Your task to perform on an android device: turn off location Image 0: 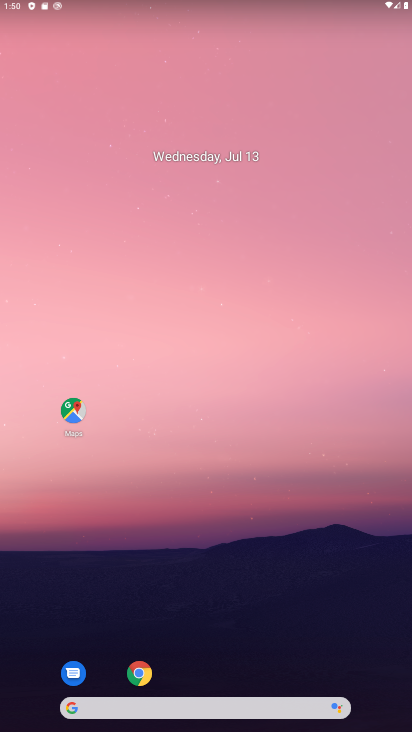
Step 0: drag from (190, 623) to (265, 105)
Your task to perform on an android device: turn off location Image 1: 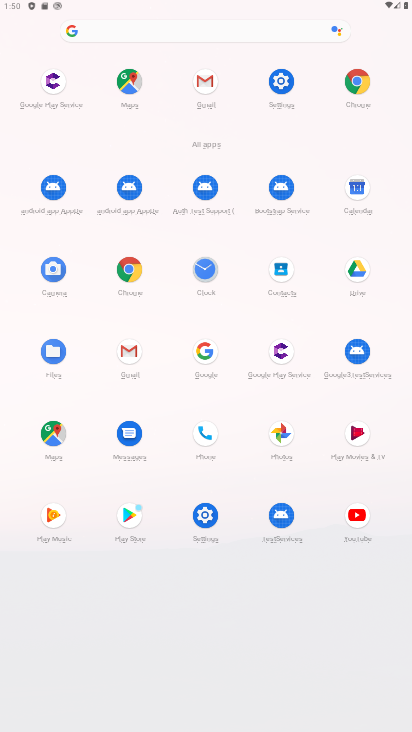
Step 1: click (286, 79)
Your task to perform on an android device: turn off location Image 2: 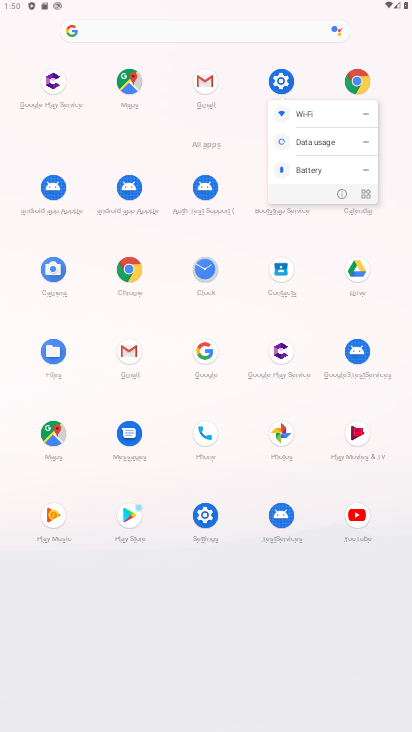
Step 2: click (245, 78)
Your task to perform on an android device: turn off location Image 3: 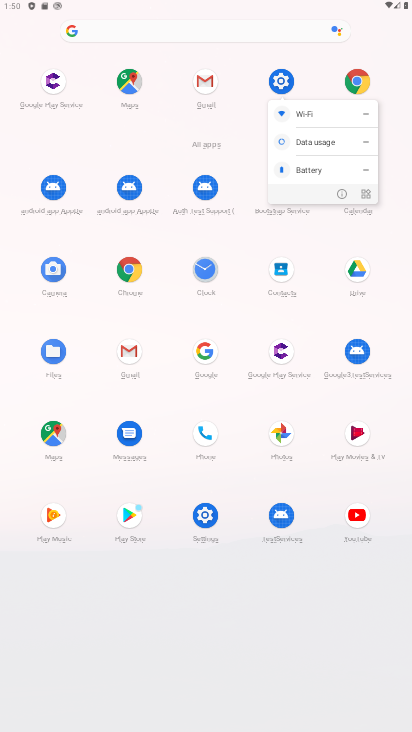
Step 3: click (269, 67)
Your task to perform on an android device: turn off location Image 4: 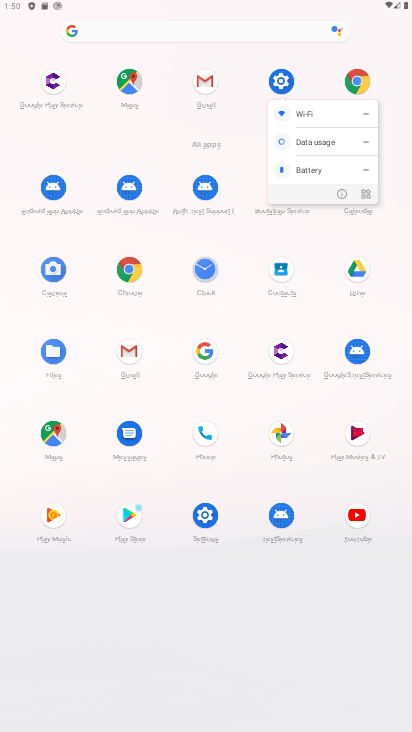
Step 4: click (285, 79)
Your task to perform on an android device: turn off location Image 5: 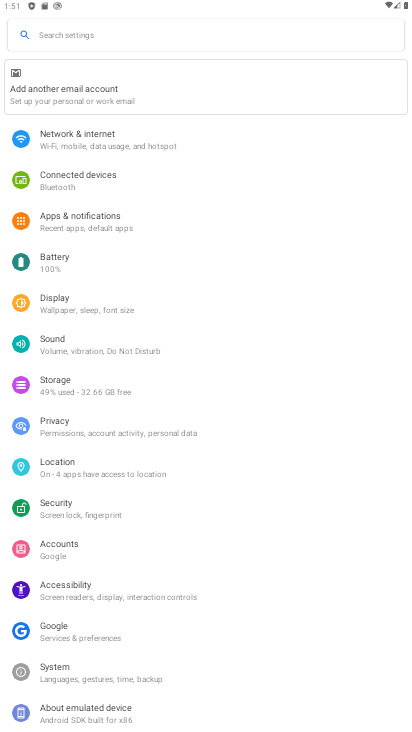
Step 5: click (66, 485)
Your task to perform on an android device: turn off location Image 6: 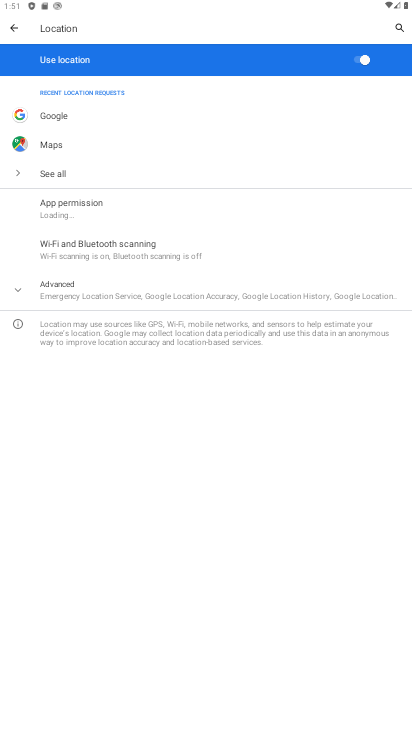
Step 6: click (365, 56)
Your task to perform on an android device: turn off location Image 7: 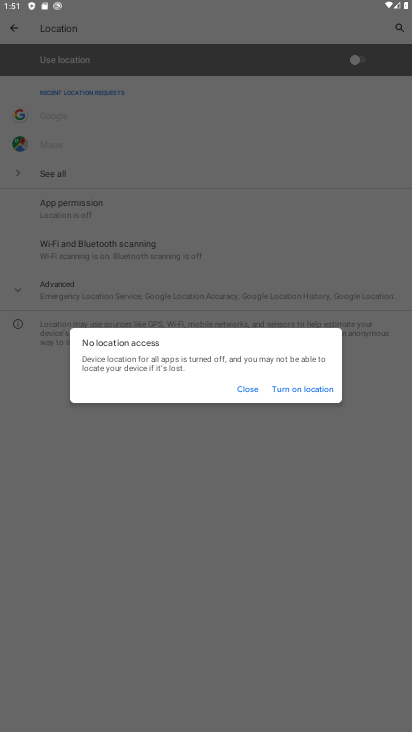
Step 7: task complete